Your task to perform on an android device: open chrome privacy settings Image 0: 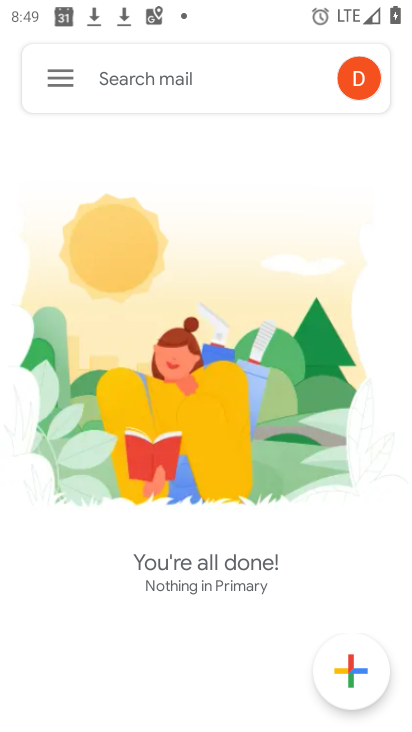
Step 0: press home button
Your task to perform on an android device: open chrome privacy settings Image 1: 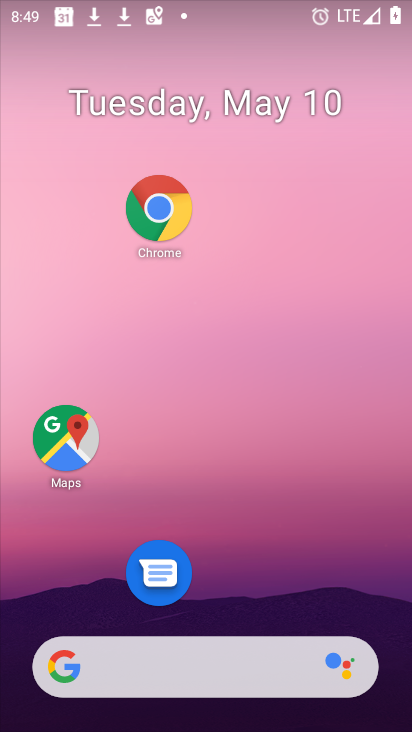
Step 1: drag from (276, 667) to (333, 238)
Your task to perform on an android device: open chrome privacy settings Image 2: 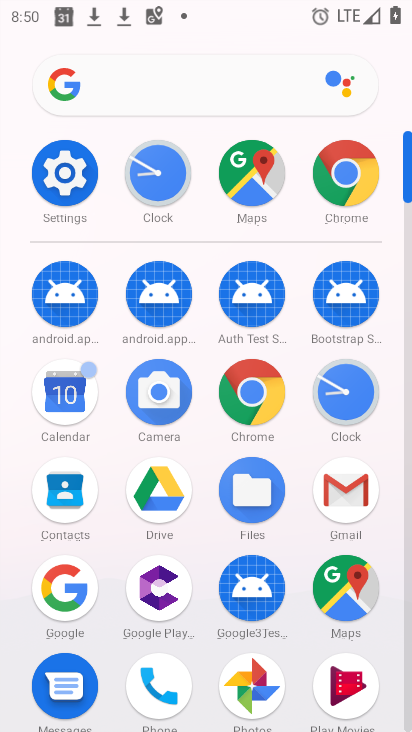
Step 2: click (73, 170)
Your task to perform on an android device: open chrome privacy settings Image 3: 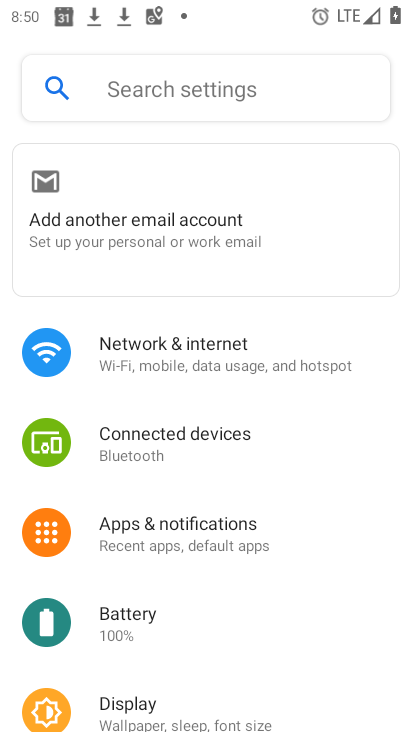
Step 3: drag from (159, 550) to (244, 181)
Your task to perform on an android device: open chrome privacy settings Image 4: 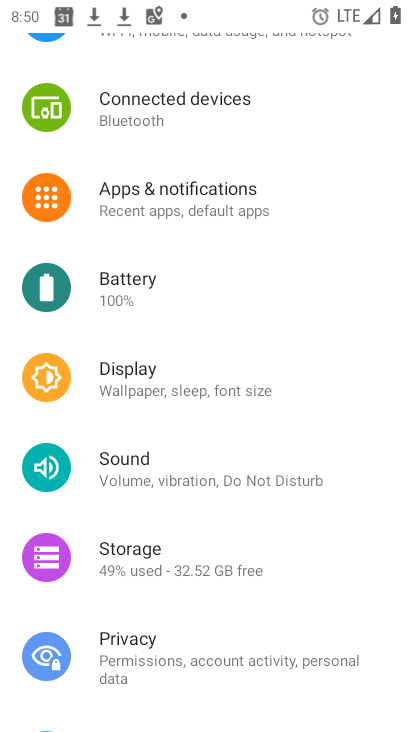
Step 4: click (124, 657)
Your task to perform on an android device: open chrome privacy settings Image 5: 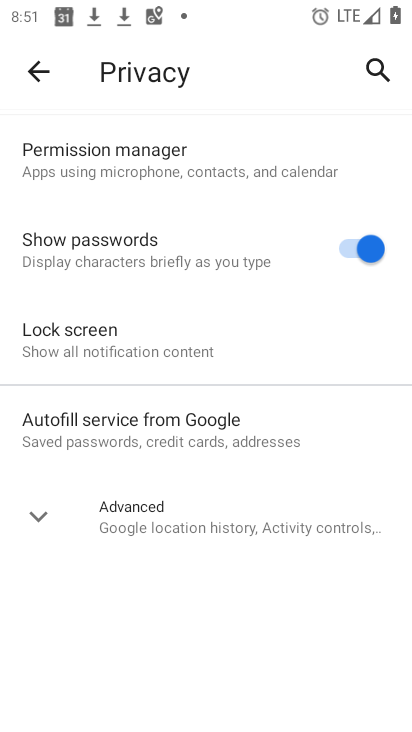
Step 5: click (103, 499)
Your task to perform on an android device: open chrome privacy settings Image 6: 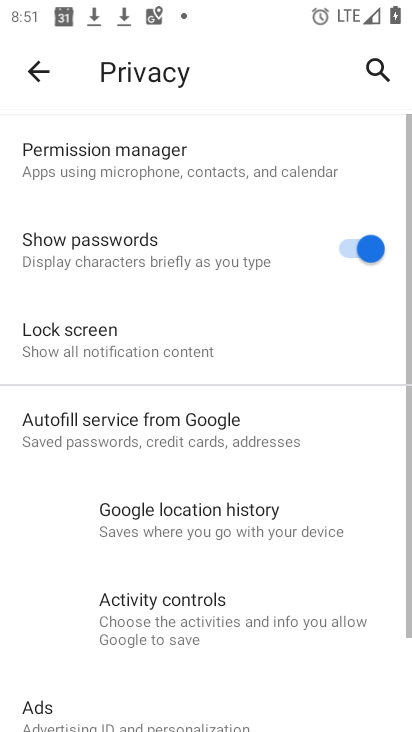
Step 6: task complete